Your task to perform on an android device: Search for Mexican restaurants on Maps Image 0: 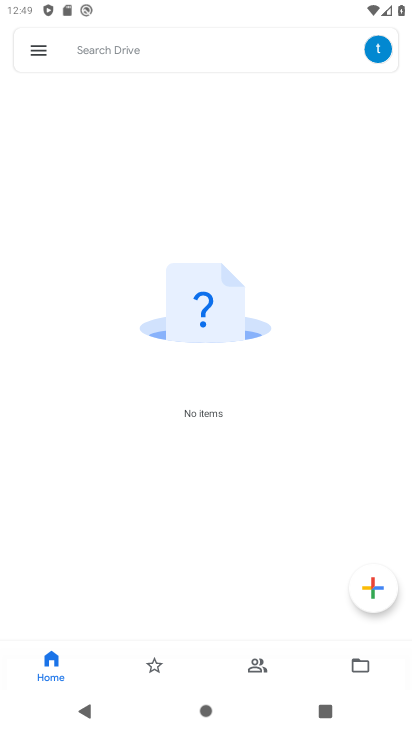
Step 0: press home button
Your task to perform on an android device: Search for Mexican restaurants on Maps Image 1: 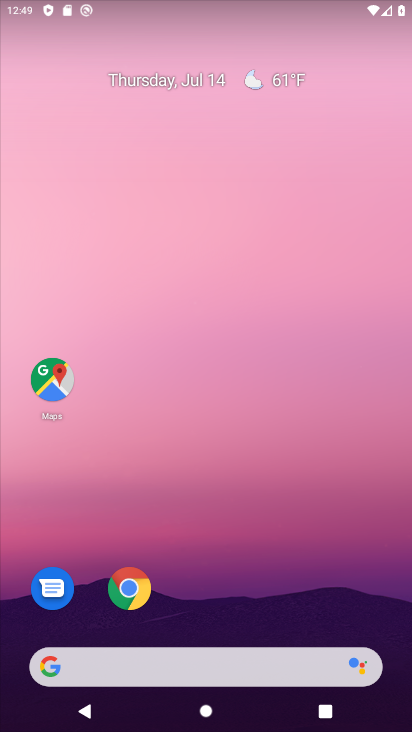
Step 1: click (44, 368)
Your task to perform on an android device: Search for Mexican restaurants on Maps Image 2: 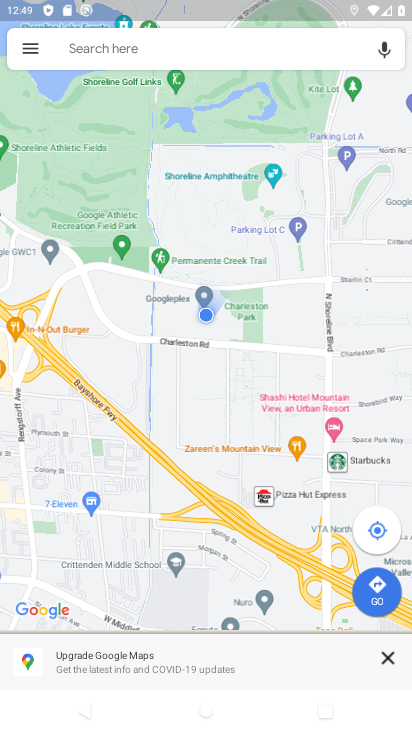
Step 2: click (236, 39)
Your task to perform on an android device: Search for Mexican restaurants on Maps Image 3: 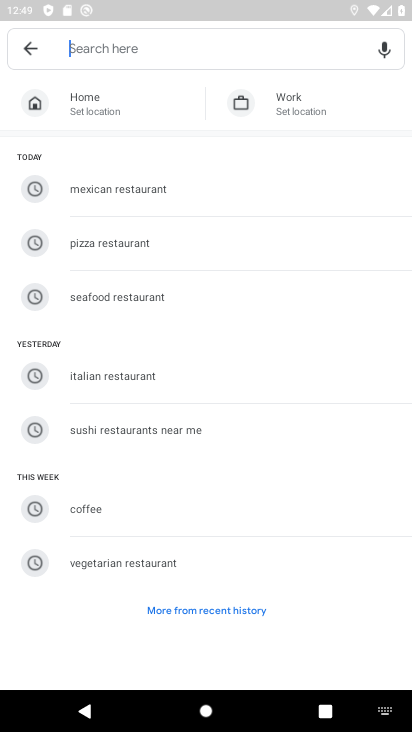
Step 3: type " Mexican restaurants  "
Your task to perform on an android device: Search for Mexican restaurants on Maps Image 4: 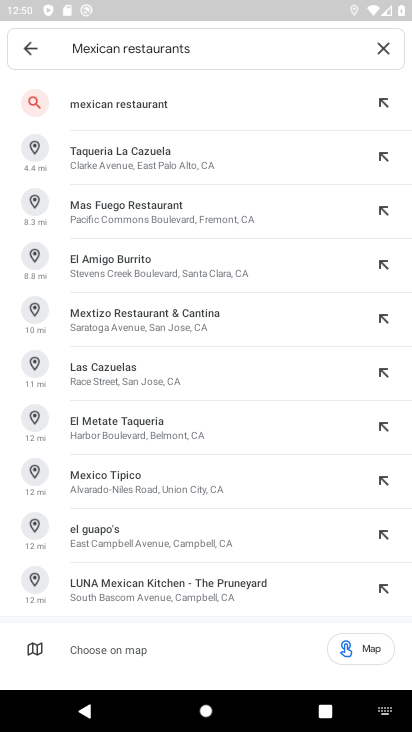
Step 4: click (180, 103)
Your task to perform on an android device: Search for Mexican restaurants on Maps Image 5: 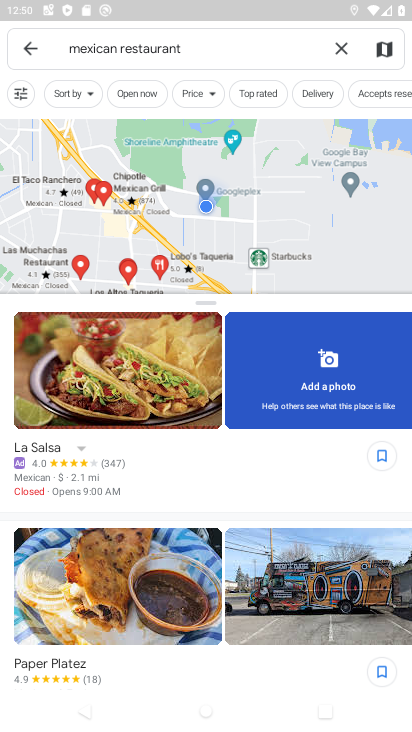
Step 5: task complete